Your task to perform on an android device: What is the recent news? Image 0: 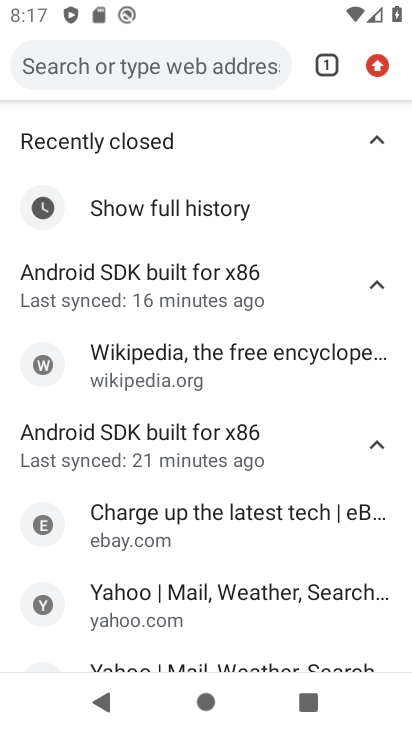
Step 0: press home button
Your task to perform on an android device: What is the recent news? Image 1: 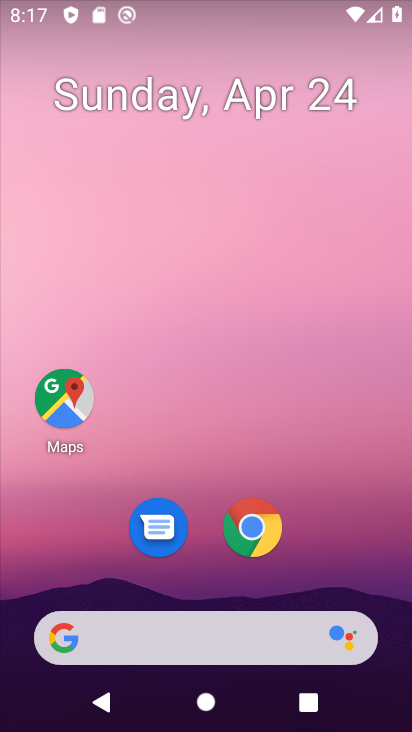
Step 1: click (176, 632)
Your task to perform on an android device: What is the recent news? Image 2: 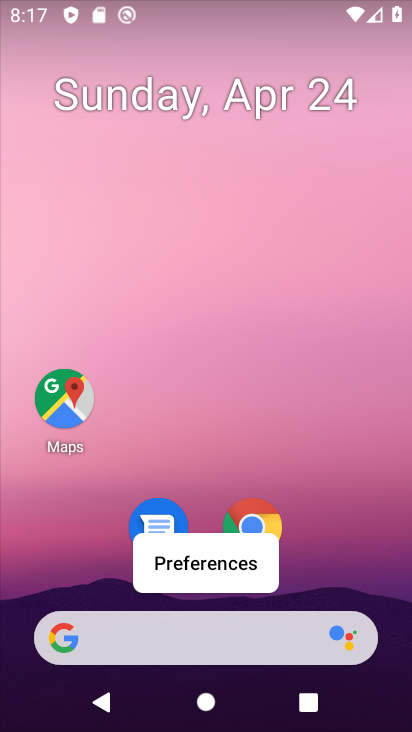
Step 2: click (165, 616)
Your task to perform on an android device: What is the recent news? Image 3: 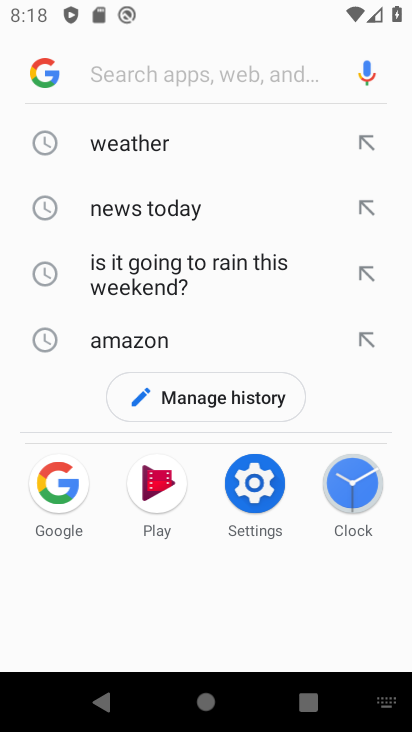
Step 3: click (185, 205)
Your task to perform on an android device: What is the recent news? Image 4: 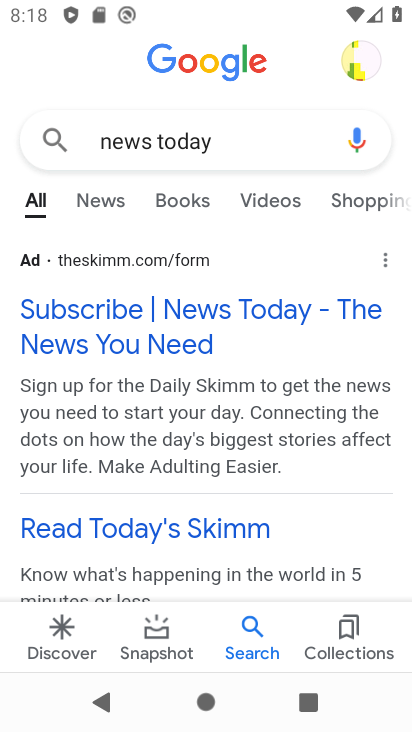
Step 4: click (105, 211)
Your task to perform on an android device: What is the recent news? Image 5: 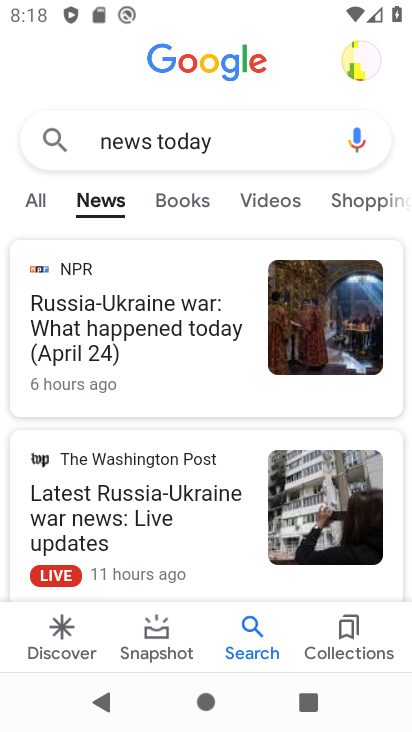
Step 5: task complete